Your task to perform on an android device: Show me popular videos on Youtube Image 0: 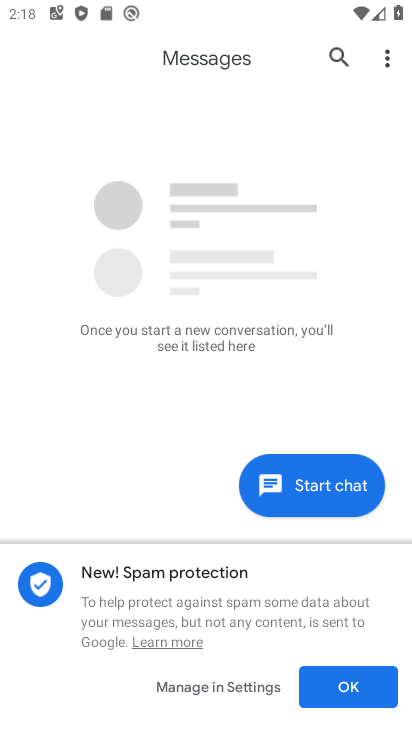
Step 0: press home button
Your task to perform on an android device: Show me popular videos on Youtube Image 1: 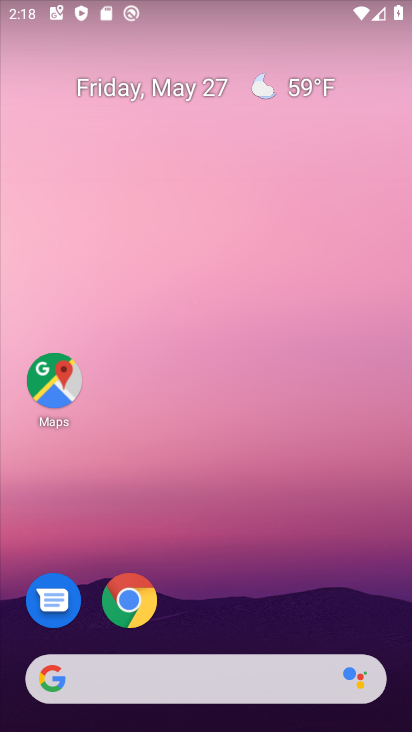
Step 1: drag from (233, 613) to (234, 13)
Your task to perform on an android device: Show me popular videos on Youtube Image 2: 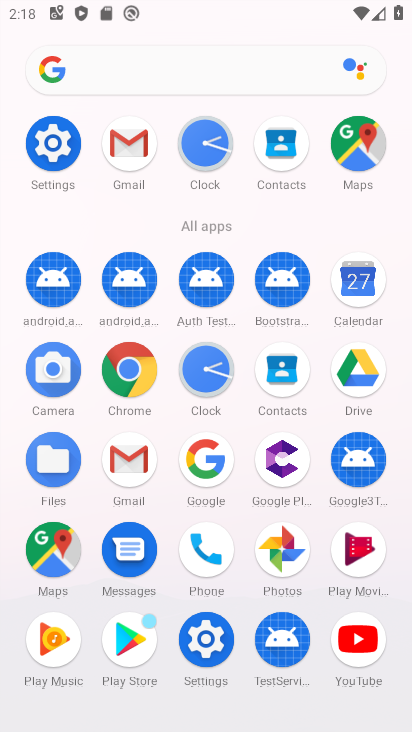
Step 2: drag from (246, 517) to (245, 304)
Your task to perform on an android device: Show me popular videos on Youtube Image 3: 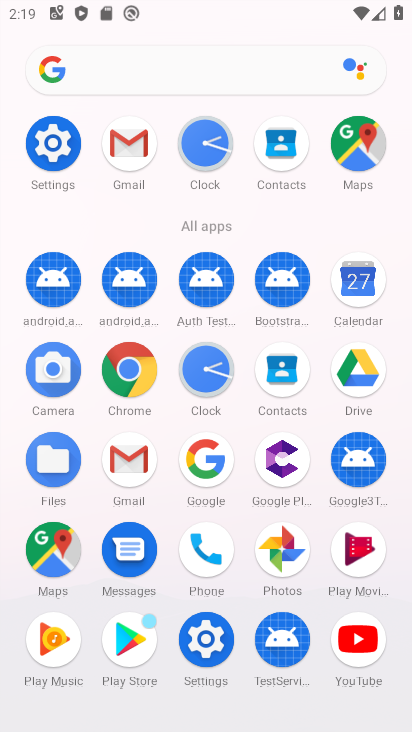
Step 3: click (357, 638)
Your task to perform on an android device: Show me popular videos on Youtube Image 4: 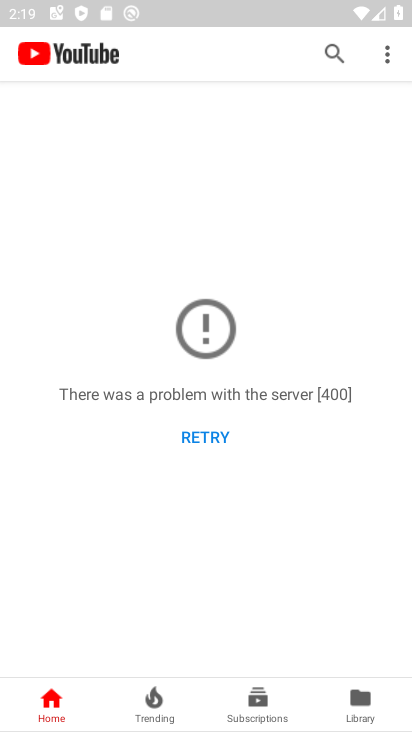
Step 4: click (209, 436)
Your task to perform on an android device: Show me popular videos on Youtube Image 5: 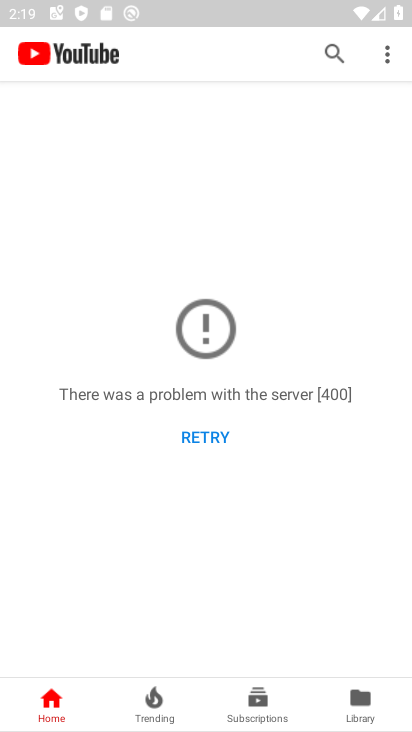
Step 5: task complete